Your task to perform on an android device: Toggle the flashlight Image 0: 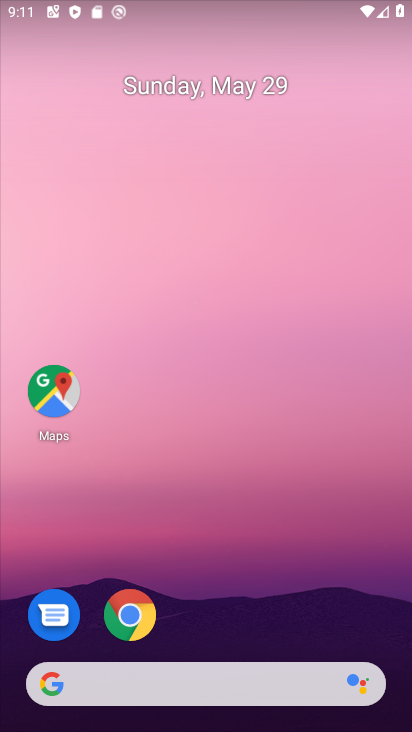
Step 0: drag from (248, 634) to (354, 0)
Your task to perform on an android device: Toggle the flashlight Image 1: 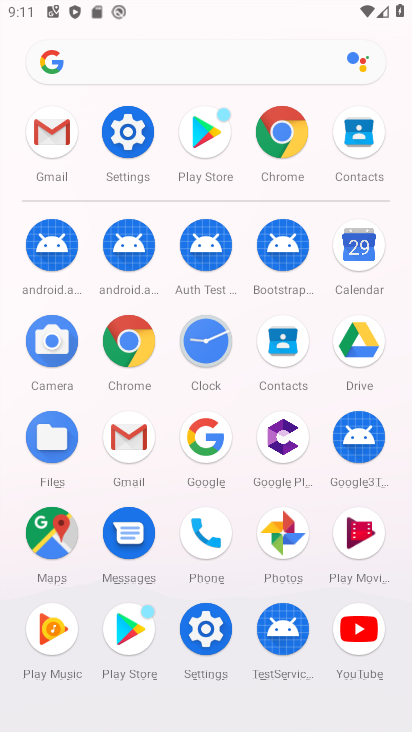
Step 1: click (132, 131)
Your task to perform on an android device: Toggle the flashlight Image 2: 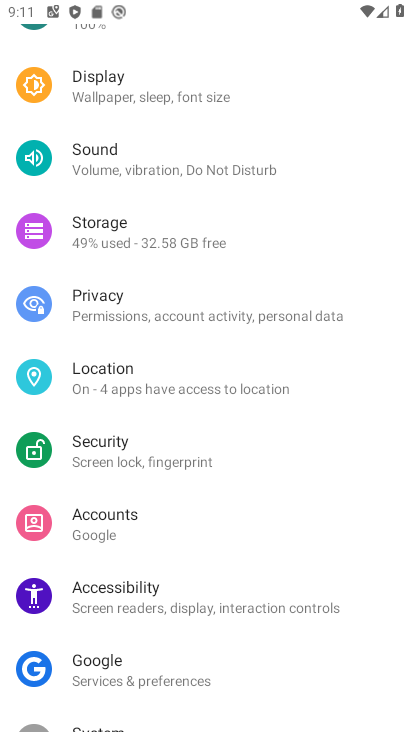
Step 2: task complete